Your task to perform on an android device: clear all cookies in the chrome app Image 0: 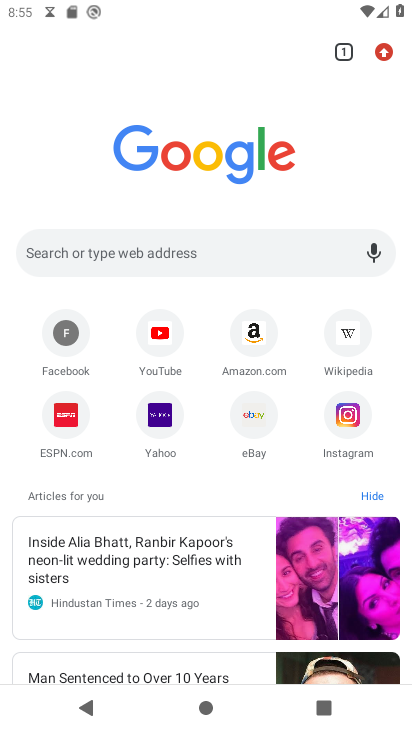
Step 0: click (382, 53)
Your task to perform on an android device: clear all cookies in the chrome app Image 1: 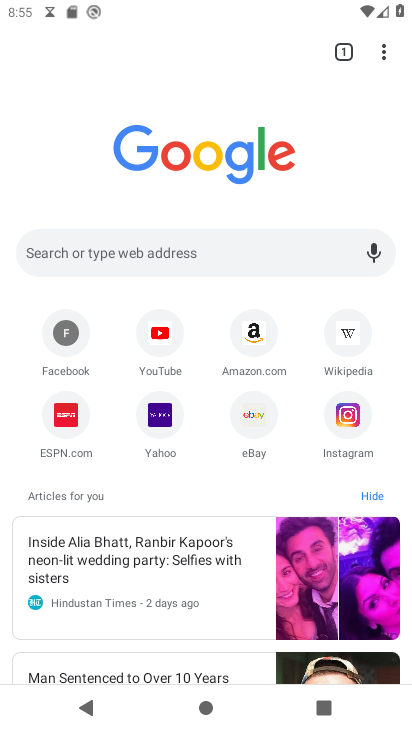
Step 1: task complete